Your task to perform on an android device: clear all cookies in the chrome app Image 0: 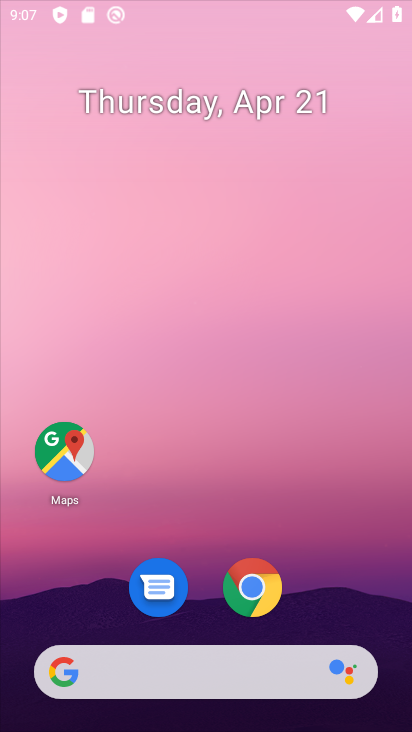
Step 0: drag from (260, 502) to (313, 135)
Your task to perform on an android device: clear all cookies in the chrome app Image 1: 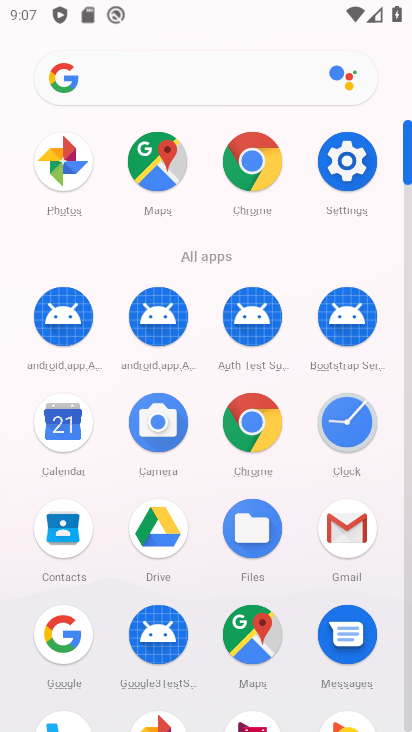
Step 1: click (246, 150)
Your task to perform on an android device: clear all cookies in the chrome app Image 2: 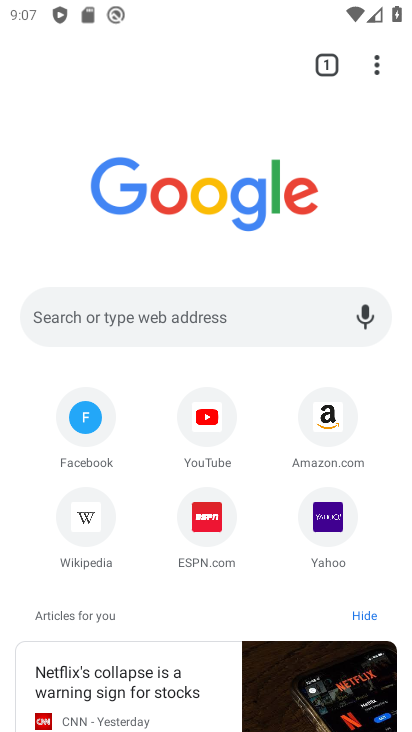
Step 2: drag from (374, 59) to (202, 354)
Your task to perform on an android device: clear all cookies in the chrome app Image 3: 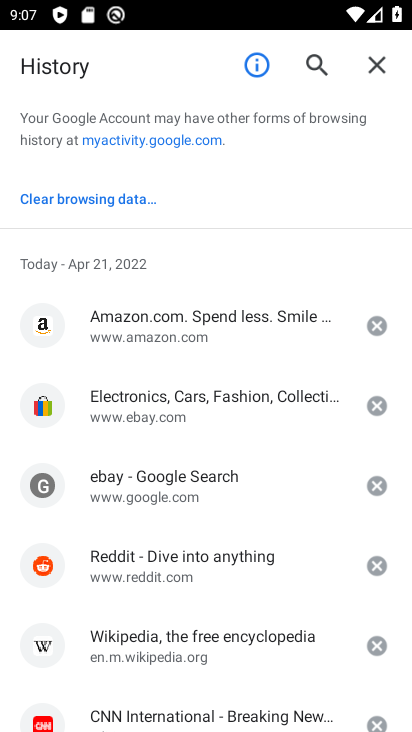
Step 3: click (109, 195)
Your task to perform on an android device: clear all cookies in the chrome app Image 4: 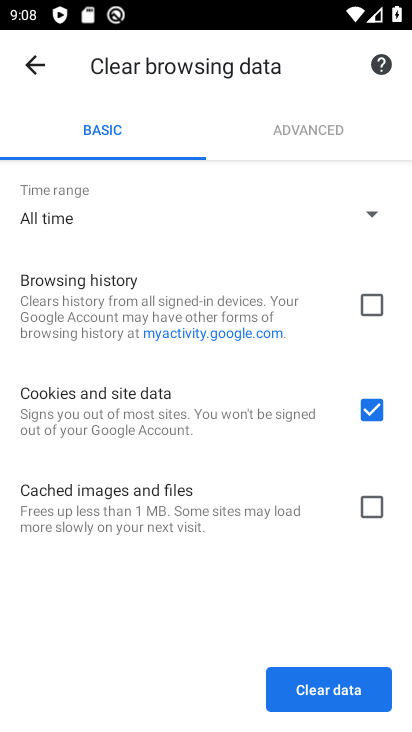
Step 4: click (348, 681)
Your task to perform on an android device: clear all cookies in the chrome app Image 5: 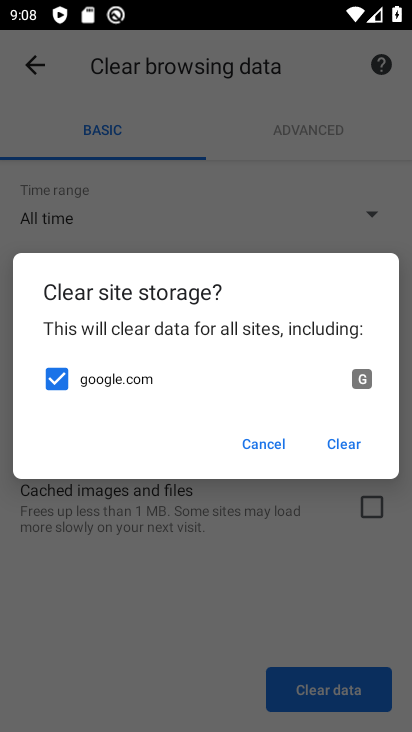
Step 5: click (352, 436)
Your task to perform on an android device: clear all cookies in the chrome app Image 6: 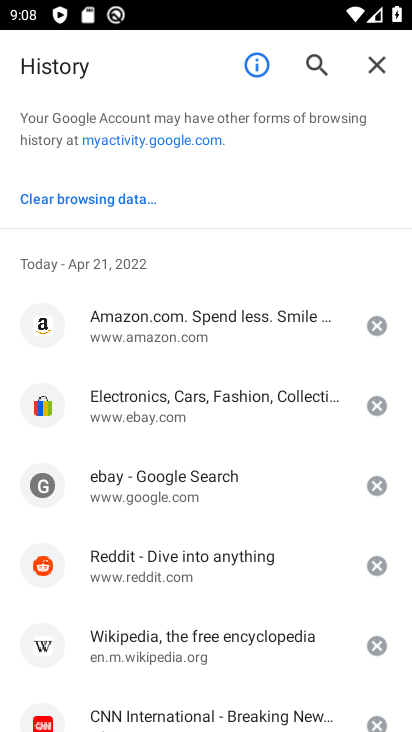
Step 6: task complete